Your task to perform on an android device: Open sound settings Image 0: 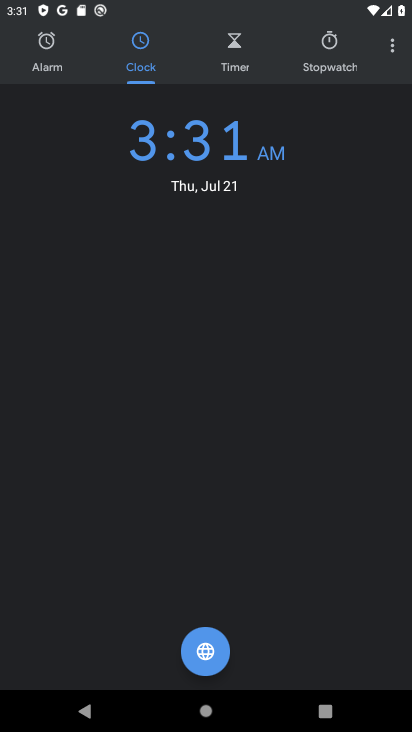
Step 0: press home button
Your task to perform on an android device: Open sound settings Image 1: 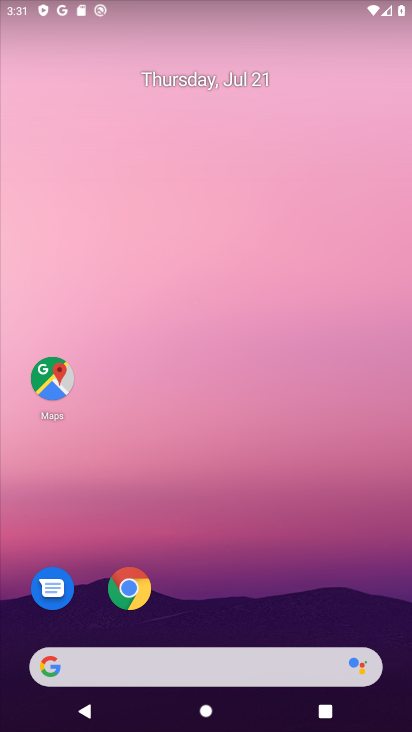
Step 1: drag from (240, 726) to (177, 149)
Your task to perform on an android device: Open sound settings Image 2: 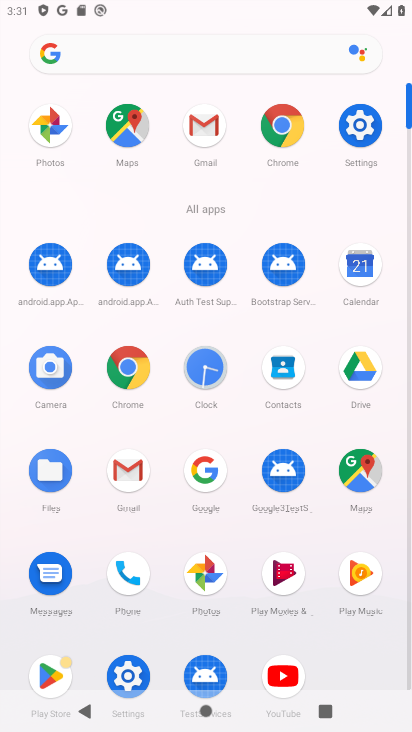
Step 2: click (362, 123)
Your task to perform on an android device: Open sound settings Image 3: 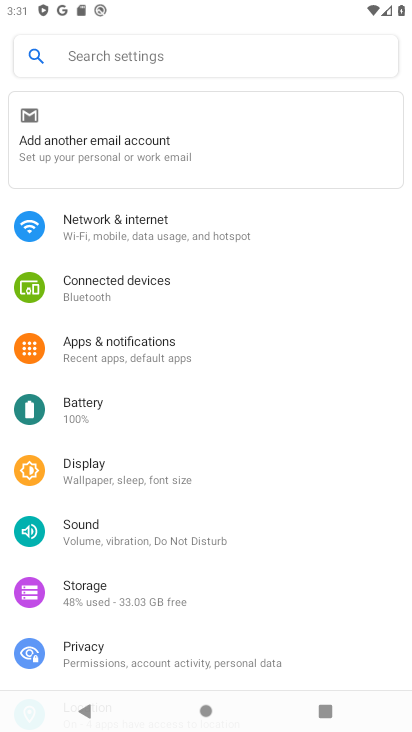
Step 3: click (94, 531)
Your task to perform on an android device: Open sound settings Image 4: 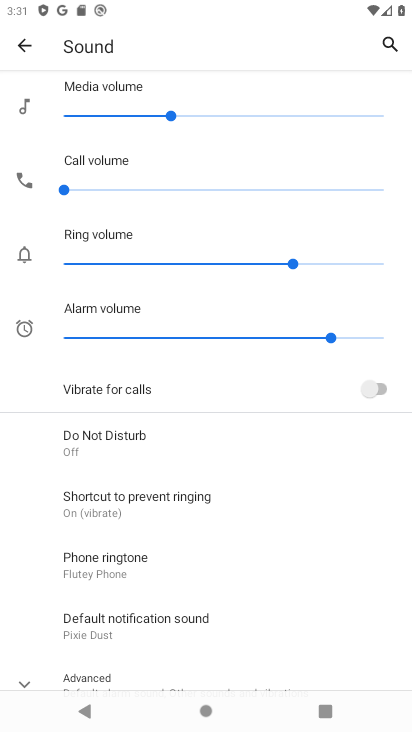
Step 4: task complete